Your task to perform on an android device: Open network settings Image 0: 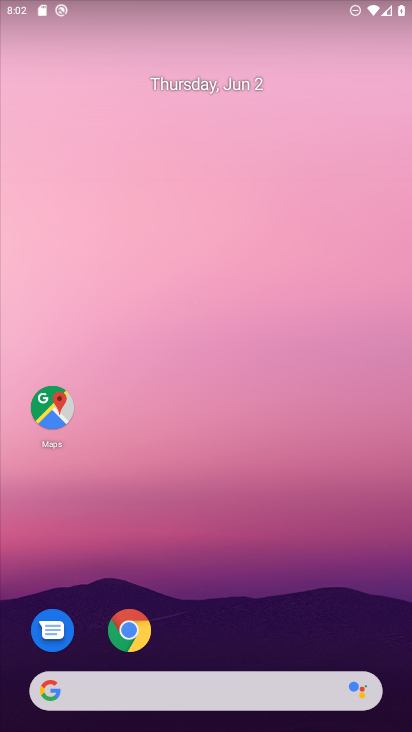
Step 0: drag from (130, 721) to (124, 70)
Your task to perform on an android device: Open network settings Image 1: 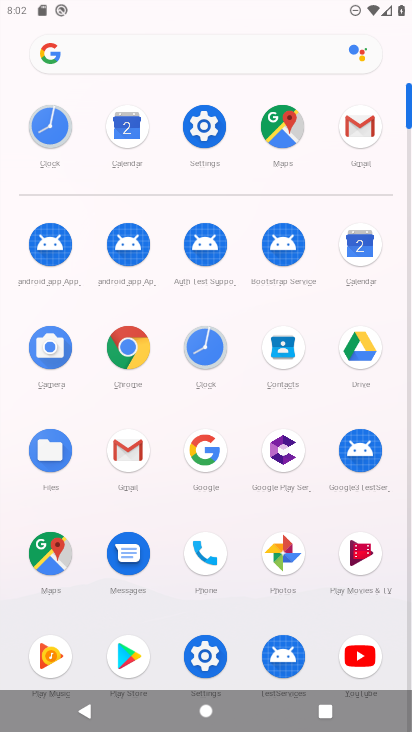
Step 1: click (205, 140)
Your task to perform on an android device: Open network settings Image 2: 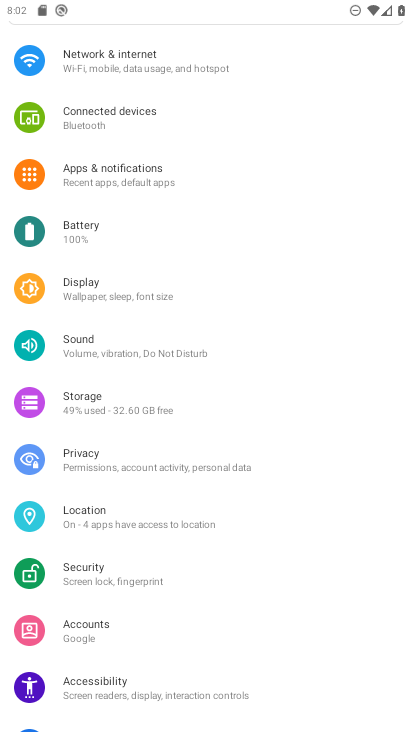
Step 2: click (141, 74)
Your task to perform on an android device: Open network settings Image 3: 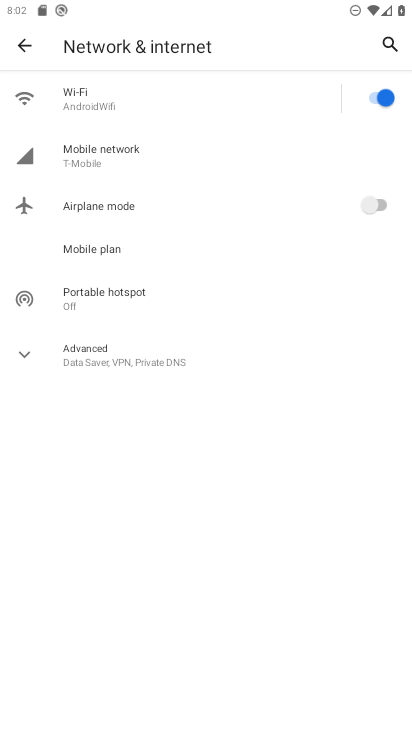
Step 3: click (162, 367)
Your task to perform on an android device: Open network settings Image 4: 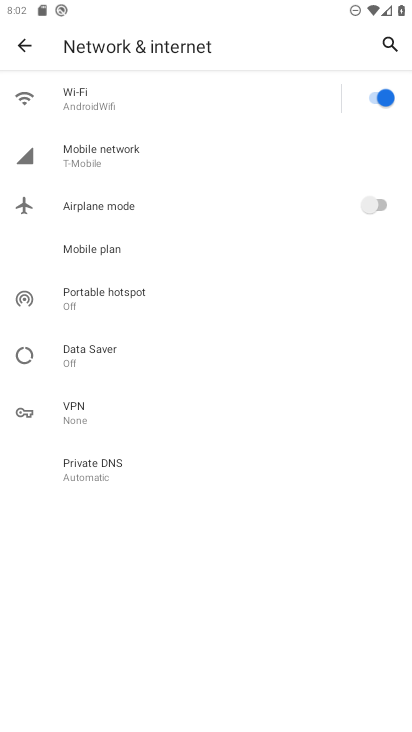
Step 4: click (131, 164)
Your task to perform on an android device: Open network settings Image 5: 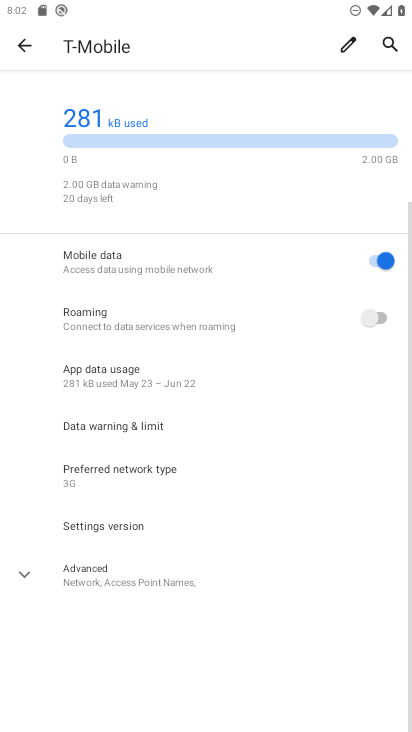
Step 5: click (108, 577)
Your task to perform on an android device: Open network settings Image 6: 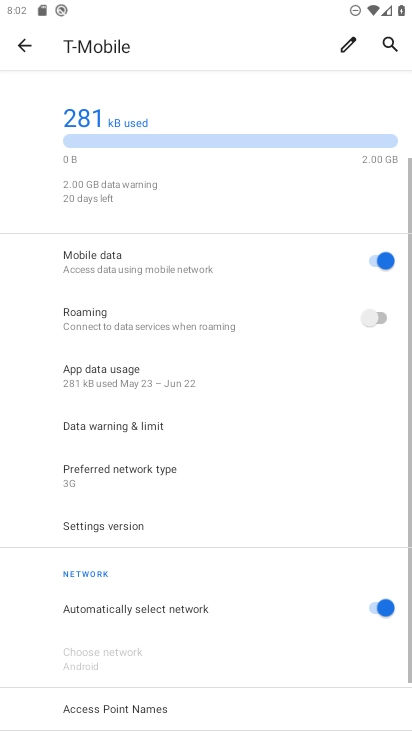
Step 6: task complete